Your task to perform on an android device: uninstall "Google Maps" Image 0: 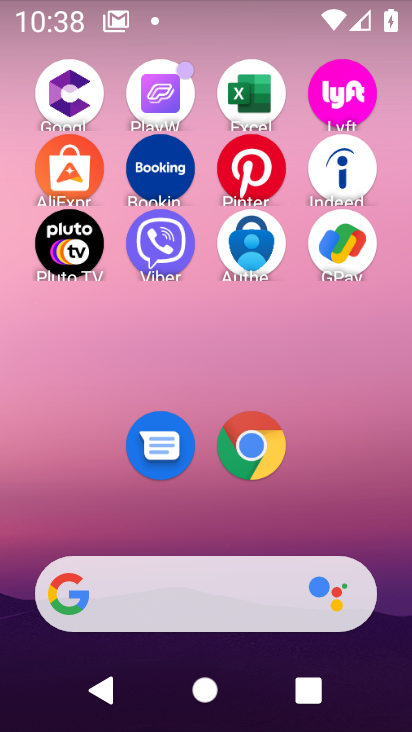
Step 0: drag from (190, 649) to (175, 206)
Your task to perform on an android device: uninstall "Google Maps" Image 1: 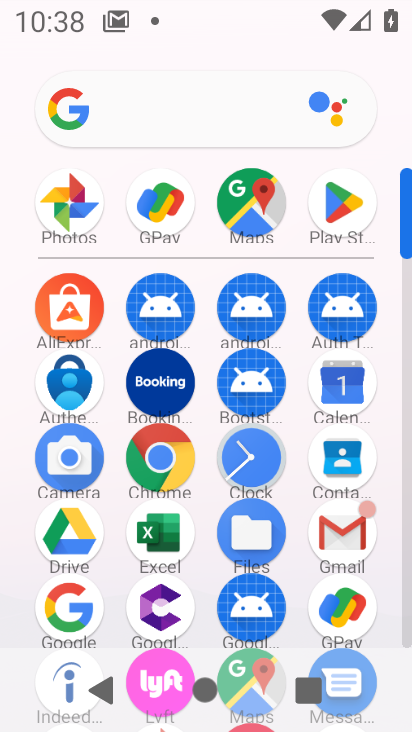
Step 1: click (347, 222)
Your task to perform on an android device: uninstall "Google Maps" Image 2: 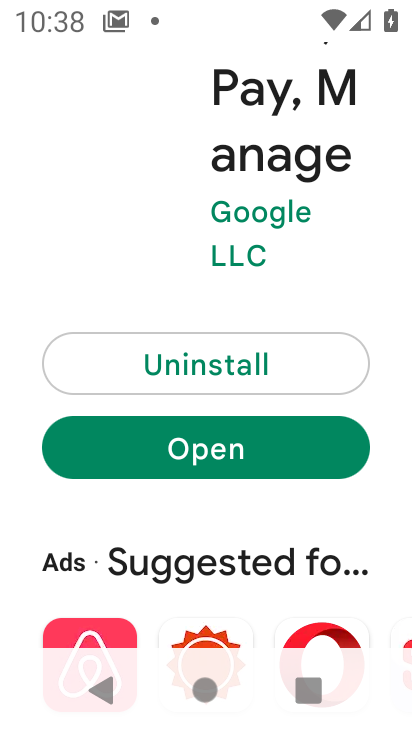
Step 2: drag from (248, 298) to (232, 651)
Your task to perform on an android device: uninstall "Google Maps" Image 3: 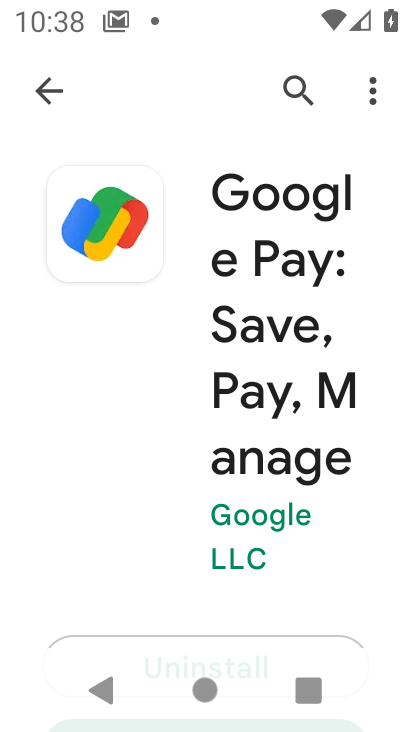
Step 3: click (57, 96)
Your task to perform on an android device: uninstall "Google Maps" Image 4: 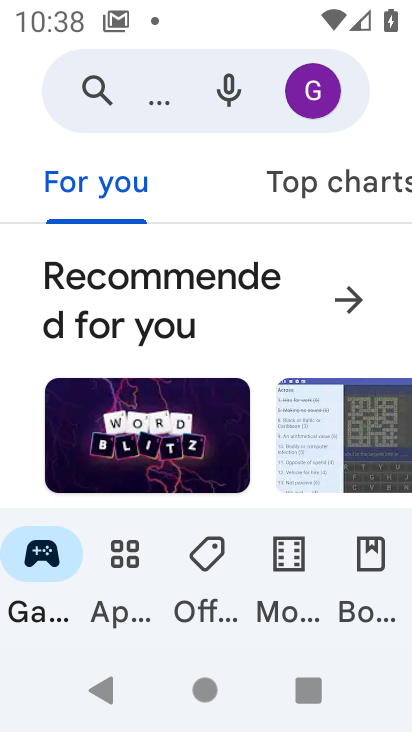
Step 4: click (82, 93)
Your task to perform on an android device: uninstall "Google Maps" Image 5: 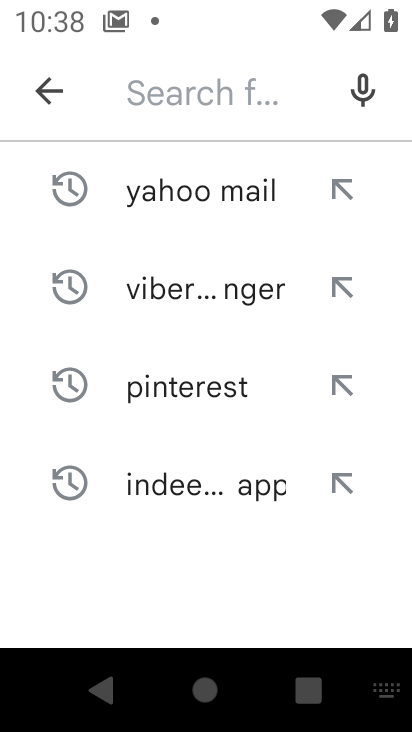
Step 5: type "Google Maps"
Your task to perform on an android device: uninstall "Google Maps" Image 6: 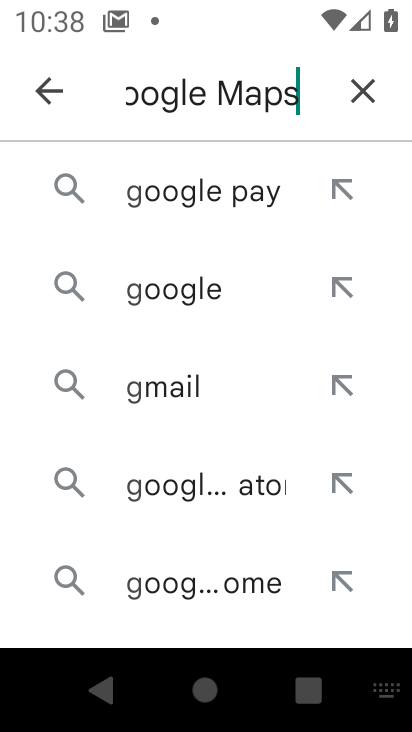
Step 6: type ""
Your task to perform on an android device: uninstall "Google Maps" Image 7: 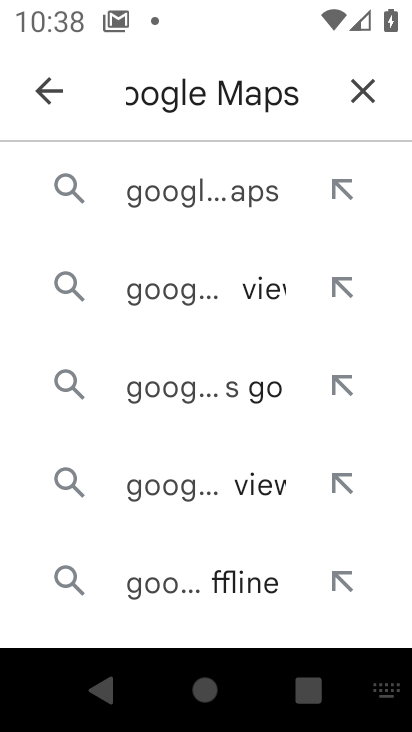
Step 7: click (256, 200)
Your task to perform on an android device: uninstall "Google Maps" Image 8: 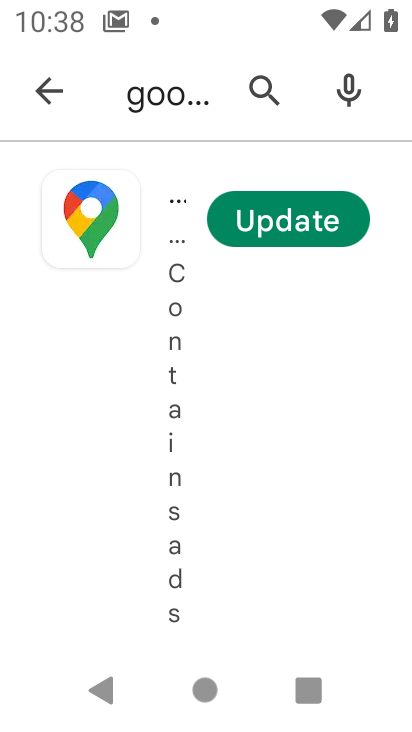
Step 8: click (289, 224)
Your task to perform on an android device: uninstall "Google Maps" Image 9: 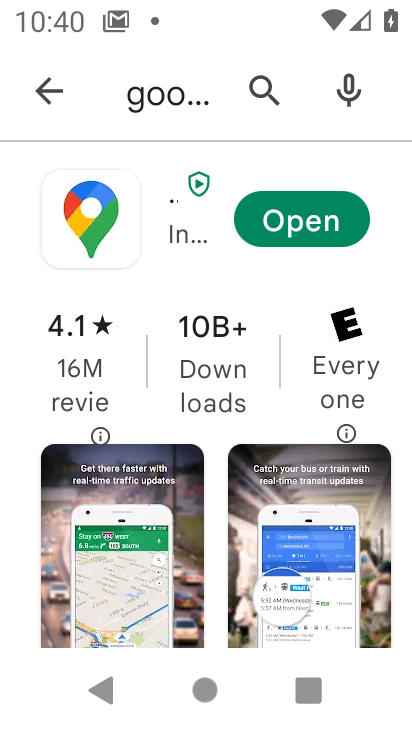
Step 9: click (53, 97)
Your task to perform on an android device: uninstall "Google Maps" Image 10: 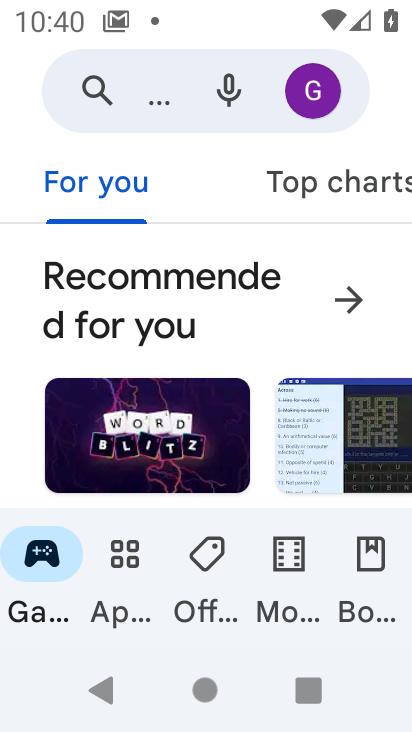
Step 10: click (95, 101)
Your task to perform on an android device: uninstall "Google Maps" Image 11: 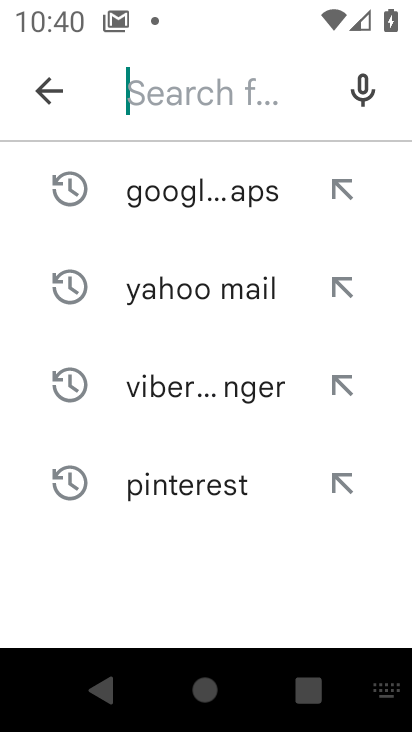
Step 11: type "Google Maps"
Your task to perform on an android device: uninstall "Google Maps" Image 12: 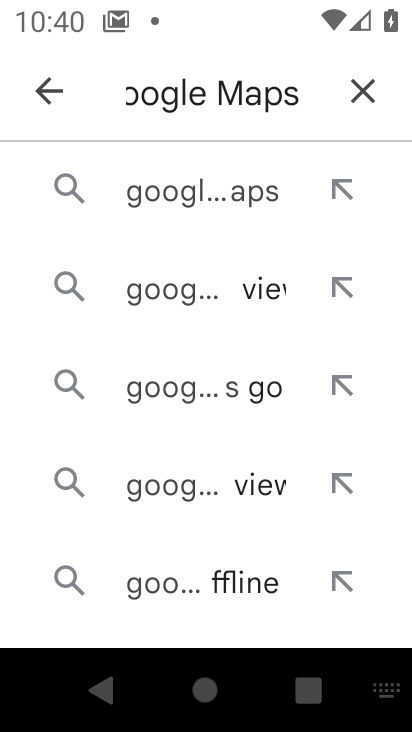
Step 12: click (230, 189)
Your task to perform on an android device: uninstall "Google Maps" Image 13: 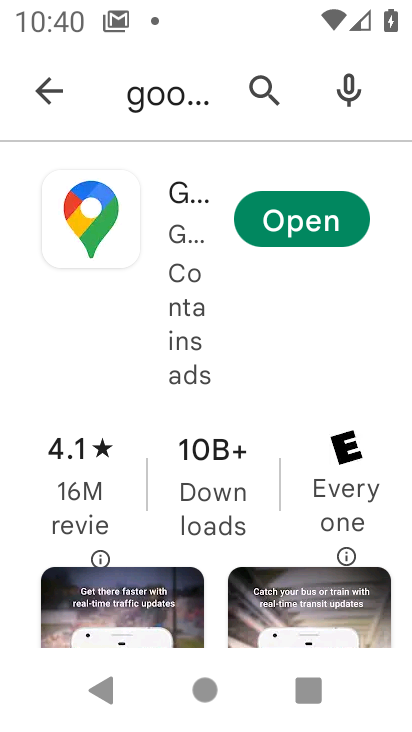
Step 13: task complete